Your task to perform on an android device: Search for vegetarian restaurants on Maps Image 0: 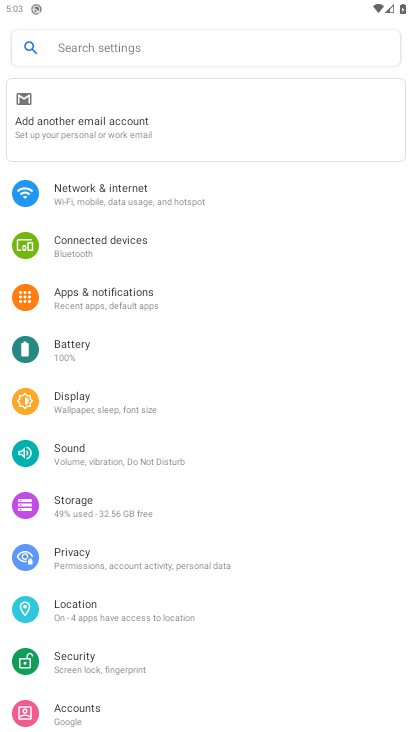
Step 0: press home button
Your task to perform on an android device: Search for vegetarian restaurants on Maps Image 1: 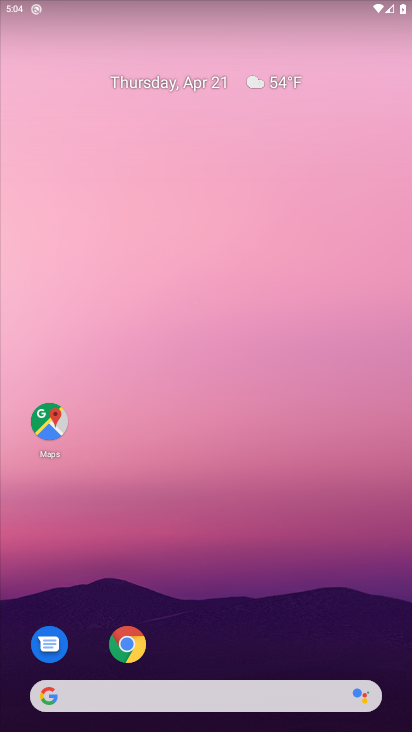
Step 1: click (50, 426)
Your task to perform on an android device: Search for vegetarian restaurants on Maps Image 2: 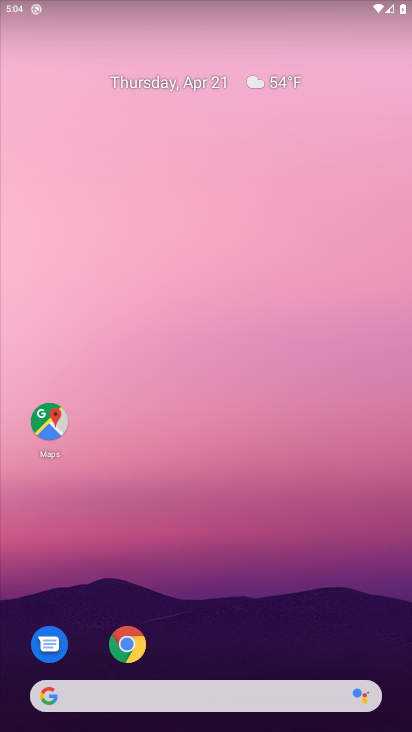
Step 2: click (50, 426)
Your task to perform on an android device: Search for vegetarian restaurants on Maps Image 3: 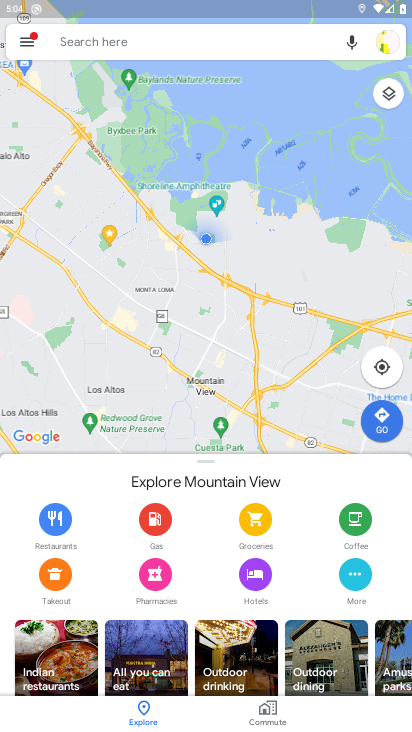
Step 3: click (159, 57)
Your task to perform on an android device: Search for vegetarian restaurants on Maps Image 4: 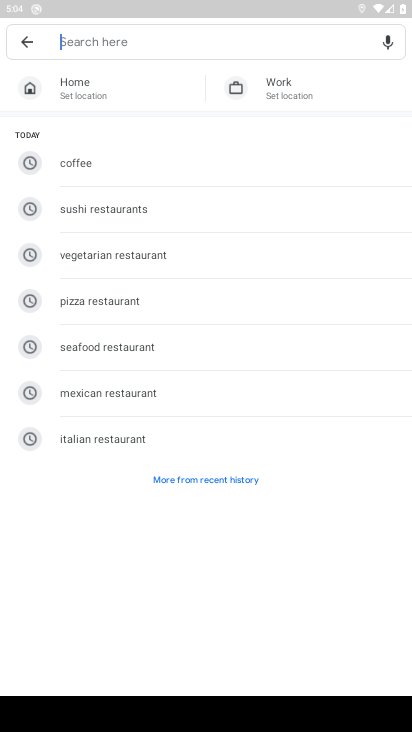
Step 4: click (103, 247)
Your task to perform on an android device: Search for vegetarian restaurants on Maps Image 5: 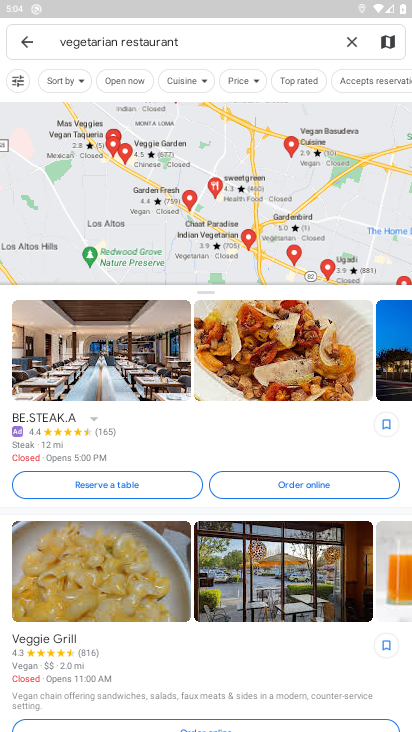
Step 5: task complete